Your task to perform on an android device: Open Google Chrome and click the shortcut for Amazon.com Image 0: 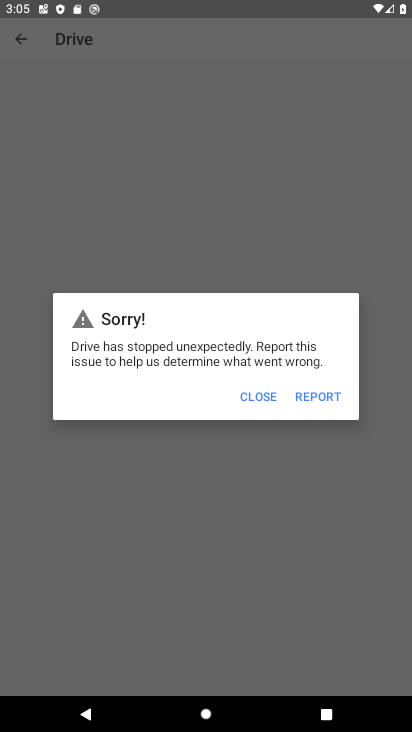
Step 0: press home button
Your task to perform on an android device: Open Google Chrome and click the shortcut for Amazon.com Image 1: 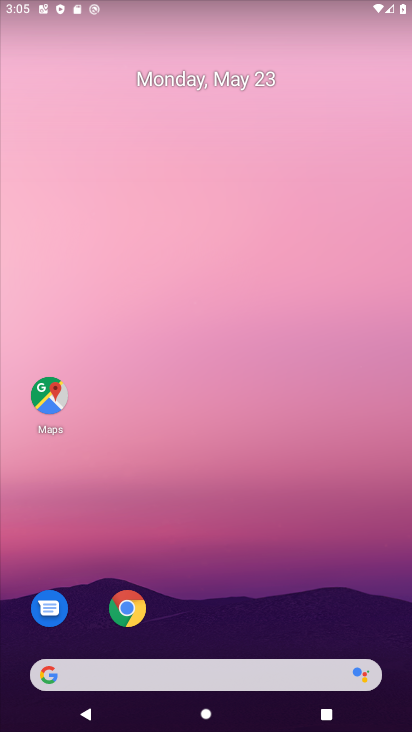
Step 1: click (128, 608)
Your task to perform on an android device: Open Google Chrome and click the shortcut for Amazon.com Image 2: 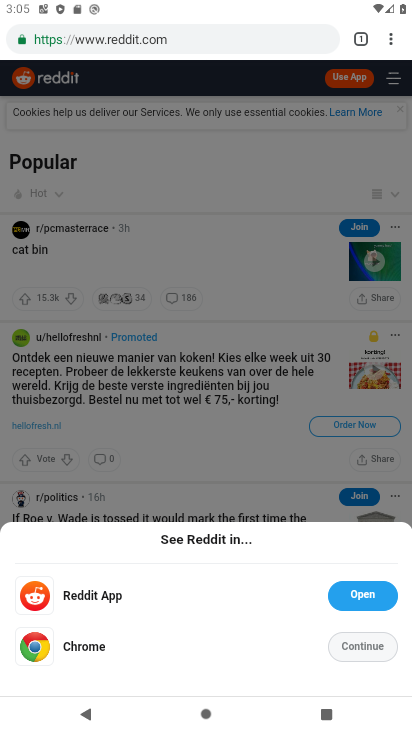
Step 2: click (298, 42)
Your task to perform on an android device: Open Google Chrome and click the shortcut for Amazon.com Image 3: 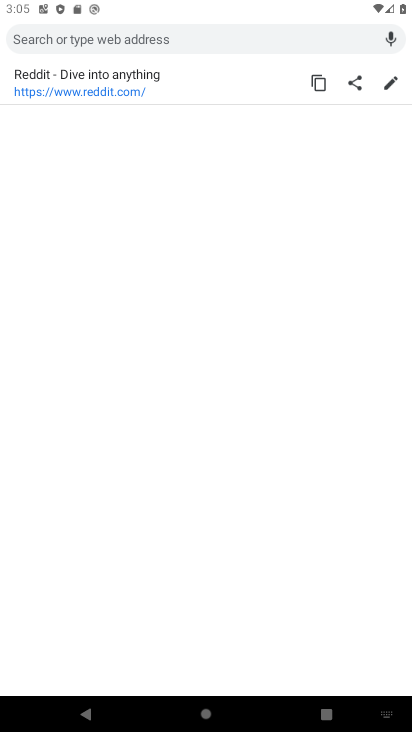
Step 3: type "Amazon.com"
Your task to perform on an android device: Open Google Chrome and click the shortcut for Amazon.com Image 4: 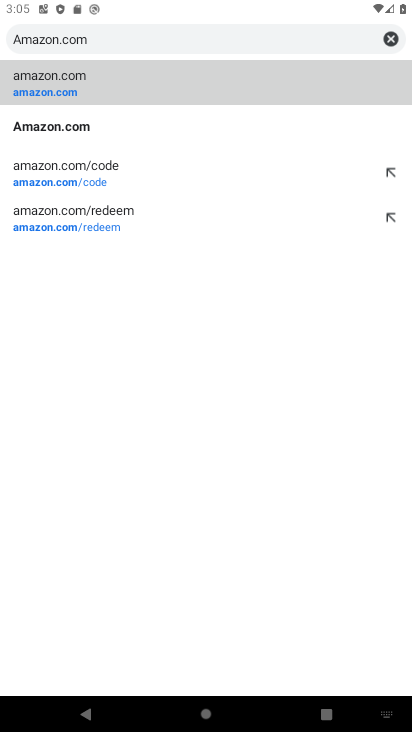
Step 4: click (68, 123)
Your task to perform on an android device: Open Google Chrome and click the shortcut for Amazon.com Image 5: 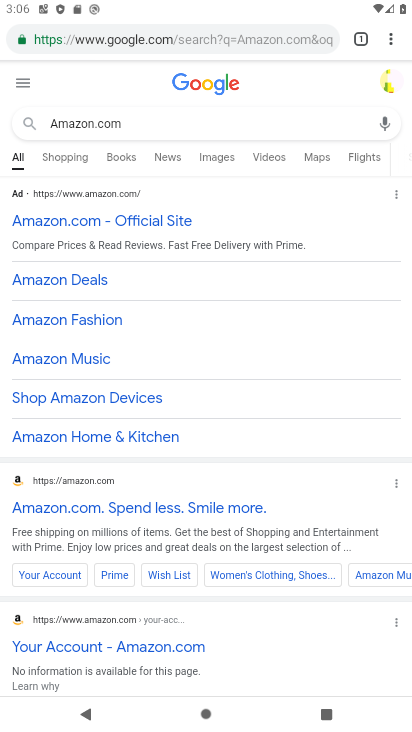
Step 5: click (137, 222)
Your task to perform on an android device: Open Google Chrome and click the shortcut for Amazon.com Image 6: 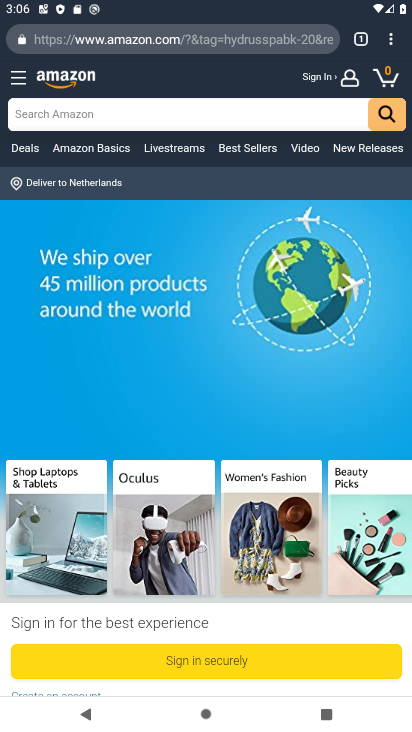
Step 6: click (392, 41)
Your task to perform on an android device: Open Google Chrome and click the shortcut for Amazon.com Image 7: 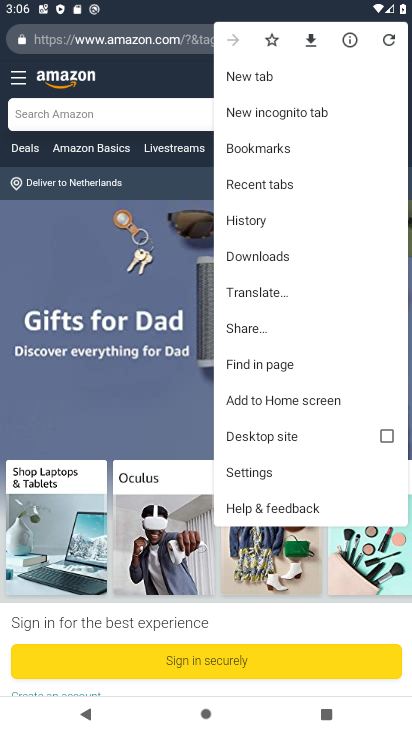
Step 7: click (318, 405)
Your task to perform on an android device: Open Google Chrome and click the shortcut for Amazon.com Image 8: 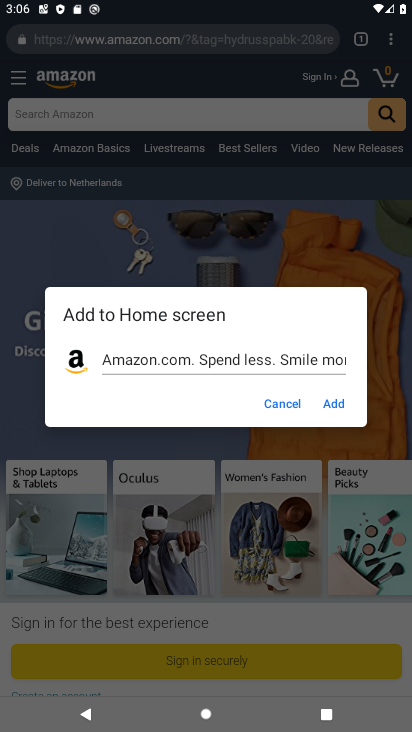
Step 8: click (327, 400)
Your task to perform on an android device: Open Google Chrome and click the shortcut for Amazon.com Image 9: 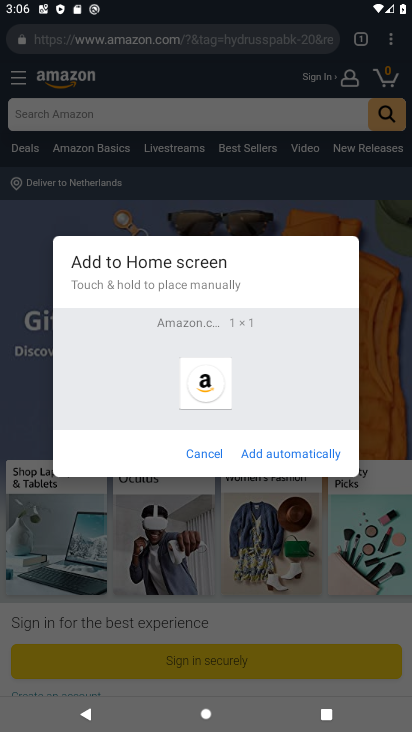
Step 9: click (293, 458)
Your task to perform on an android device: Open Google Chrome and click the shortcut for Amazon.com Image 10: 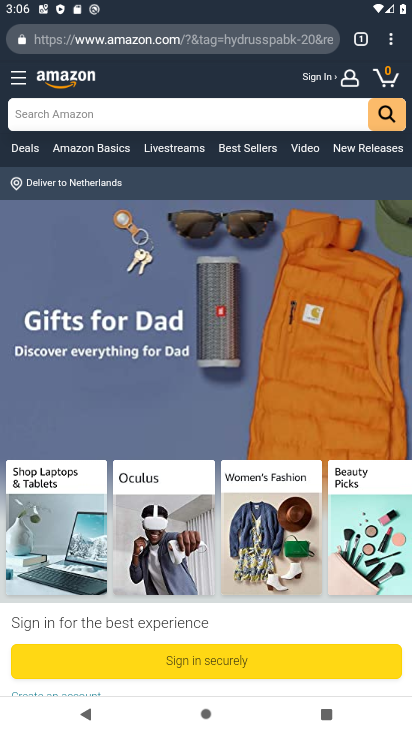
Step 10: task complete